Your task to perform on an android device: Open Maps and search for coffee Image 0: 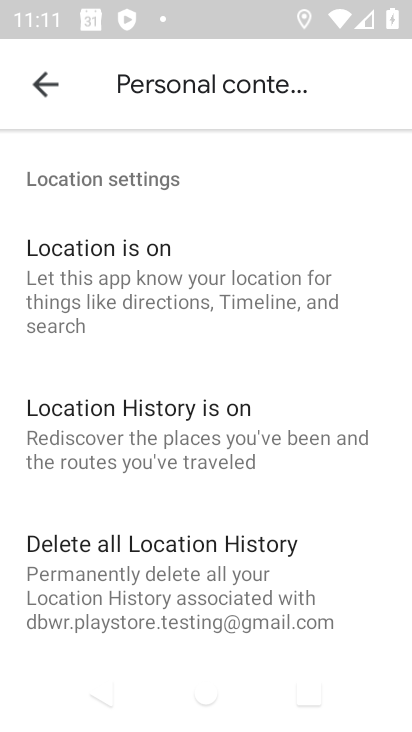
Step 0: click (25, 85)
Your task to perform on an android device: Open Maps and search for coffee Image 1: 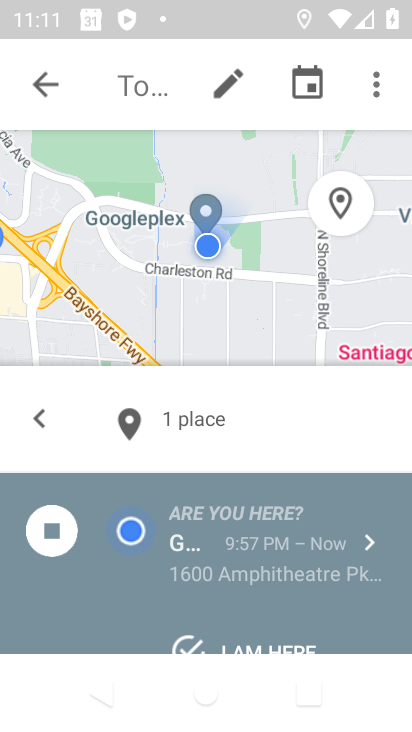
Step 1: click (25, 85)
Your task to perform on an android device: Open Maps and search for coffee Image 2: 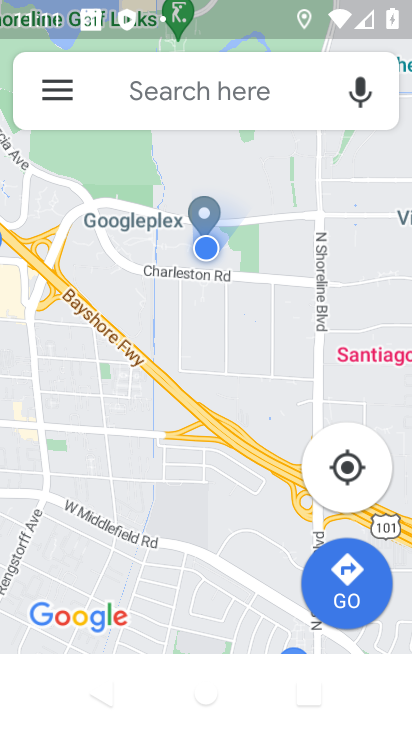
Step 2: click (187, 72)
Your task to perform on an android device: Open Maps and search for coffee Image 3: 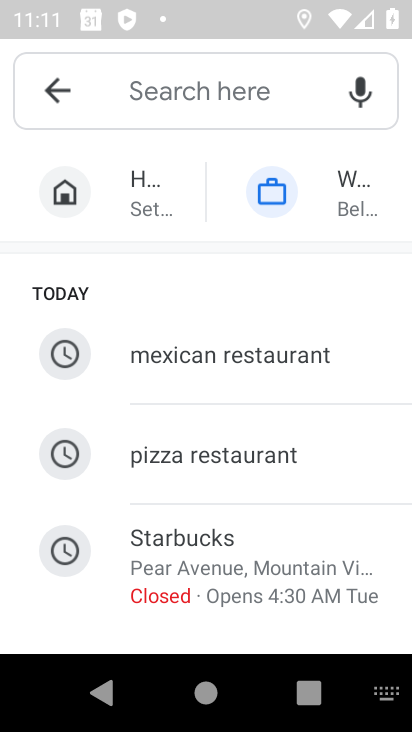
Step 3: type "coffee"
Your task to perform on an android device: Open Maps and search for coffee Image 4: 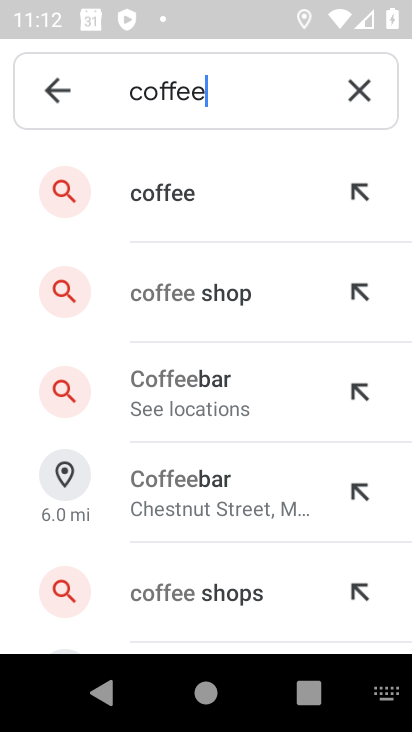
Step 4: click (183, 191)
Your task to perform on an android device: Open Maps and search for coffee Image 5: 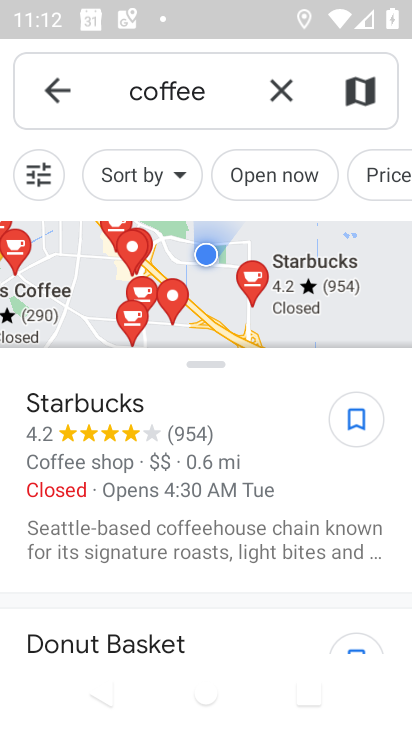
Step 5: task complete